Your task to perform on an android device: What's the latest video from Game Informer? Image 0: 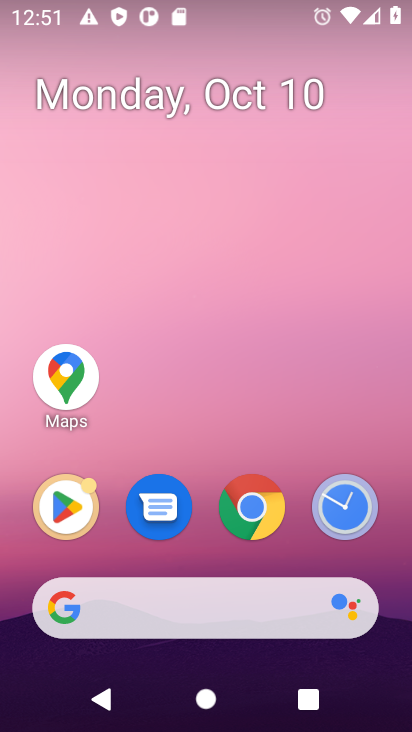
Step 0: press home button
Your task to perform on an android device: What's the latest video from Game Informer? Image 1: 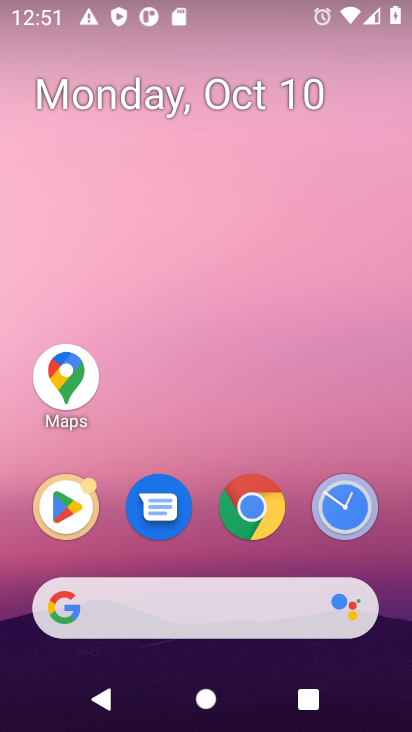
Step 1: click (261, 609)
Your task to perform on an android device: What's the latest video from Game Informer? Image 2: 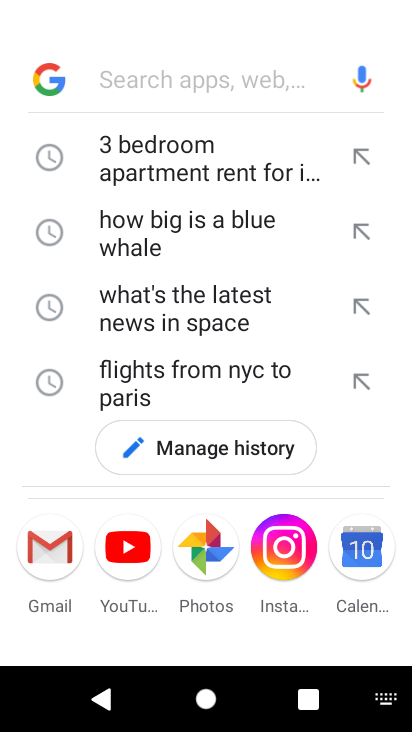
Step 2: type "What's the latest video from Game Informer?"
Your task to perform on an android device: What's the latest video from Game Informer? Image 3: 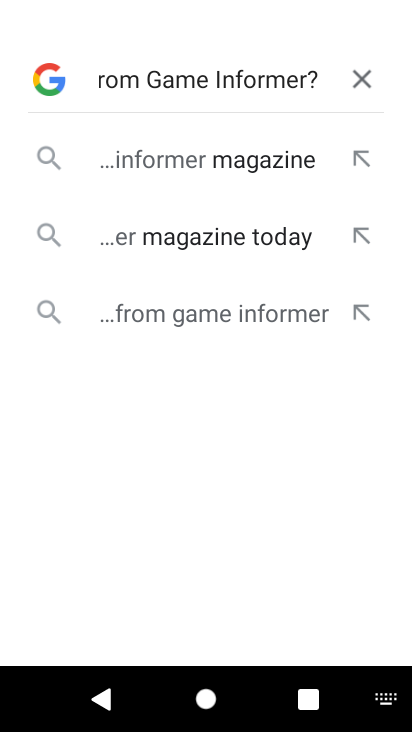
Step 3: press enter
Your task to perform on an android device: What's the latest video from Game Informer? Image 4: 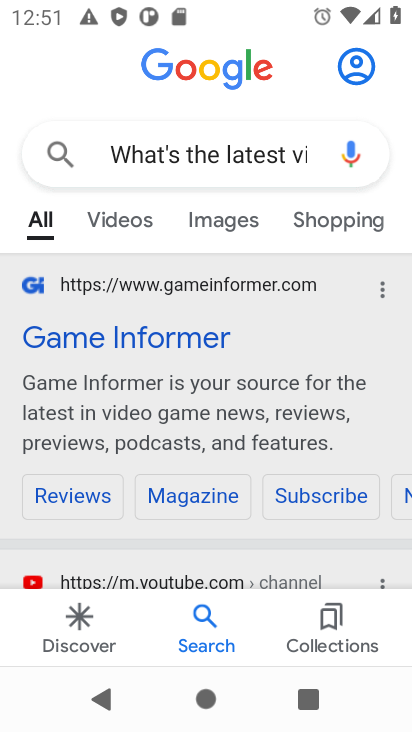
Step 4: drag from (219, 526) to (221, 410)
Your task to perform on an android device: What's the latest video from Game Informer? Image 5: 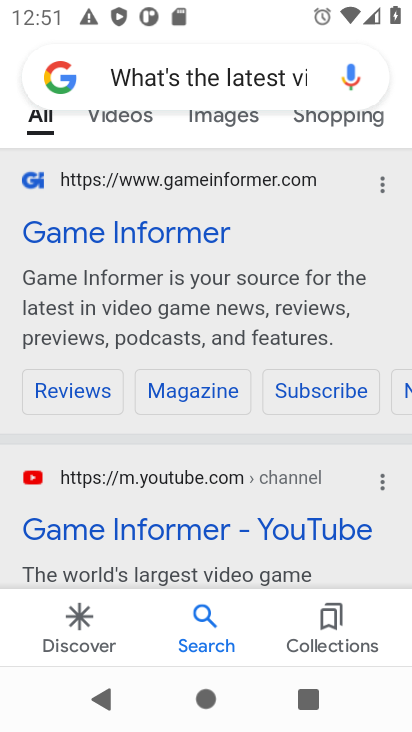
Step 5: drag from (238, 549) to (238, 420)
Your task to perform on an android device: What's the latest video from Game Informer? Image 6: 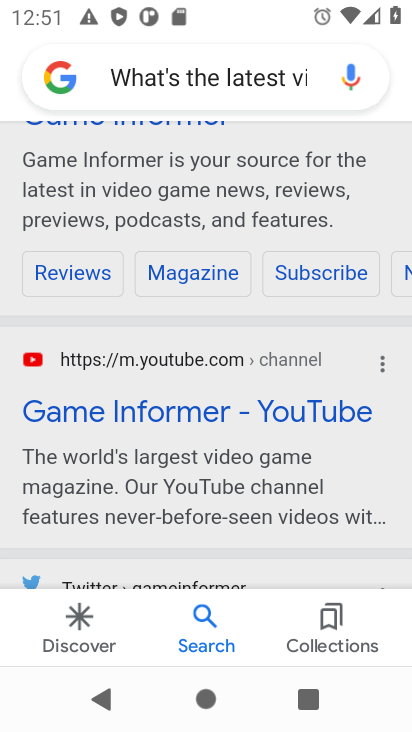
Step 6: click (181, 411)
Your task to perform on an android device: What's the latest video from Game Informer? Image 7: 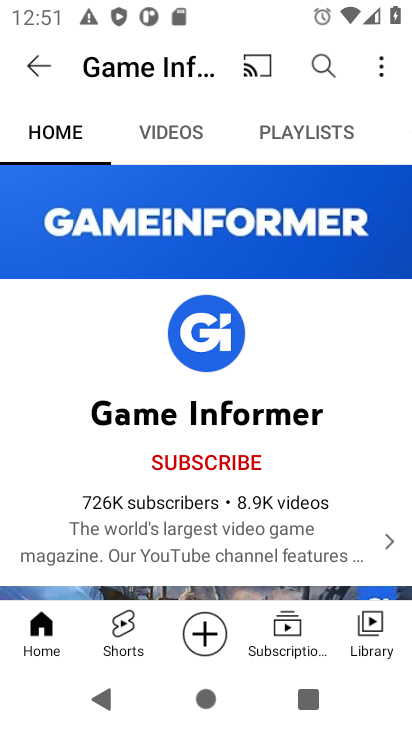
Step 7: task complete